Your task to perform on an android device: check google app version Image 0: 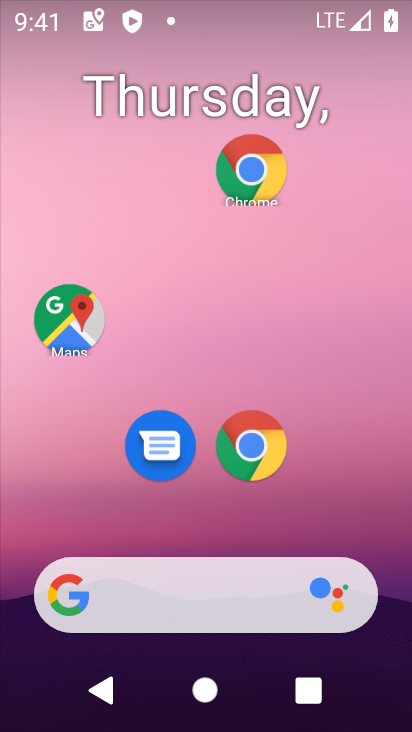
Step 0: drag from (211, 553) to (236, 50)
Your task to perform on an android device: check google app version Image 1: 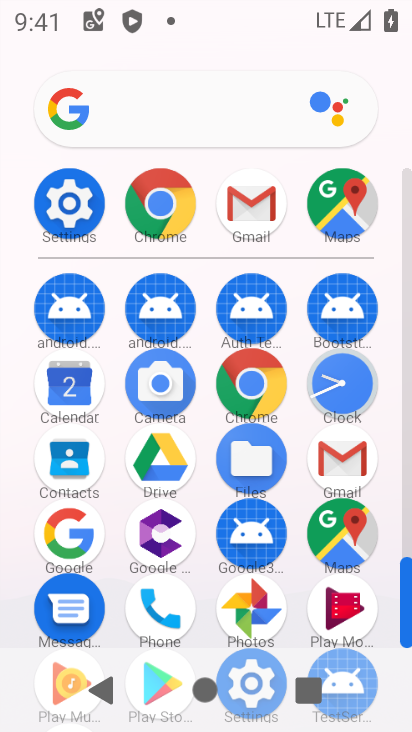
Step 1: click (76, 529)
Your task to perform on an android device: check google app version Image 2: 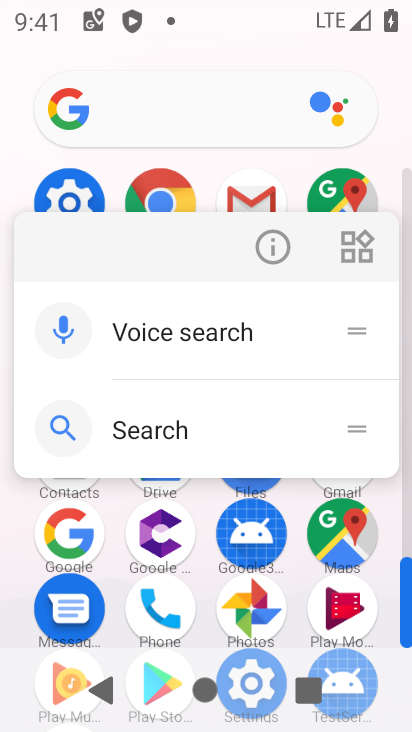
Step 2: click (268, 245)
Your task to perform on an android device: check google app version Image 3: 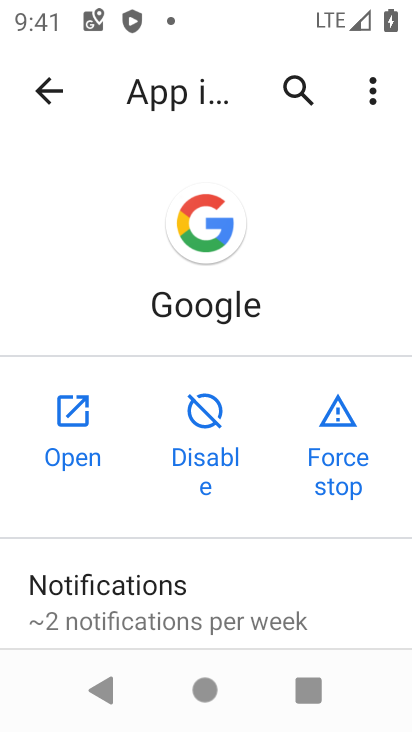
Step 3: drag from (268, 549) to (195, 3)
Your task to perform on an android device: check google app version Image 4: 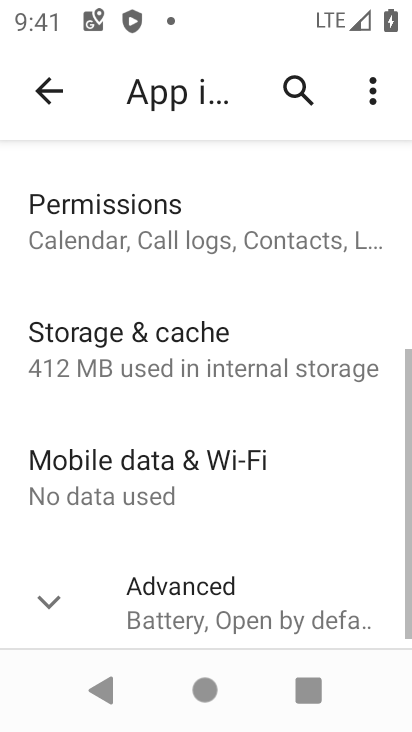
Step 4: click (176, 601)
Your task to perform on an android device: check google app version Image 5: 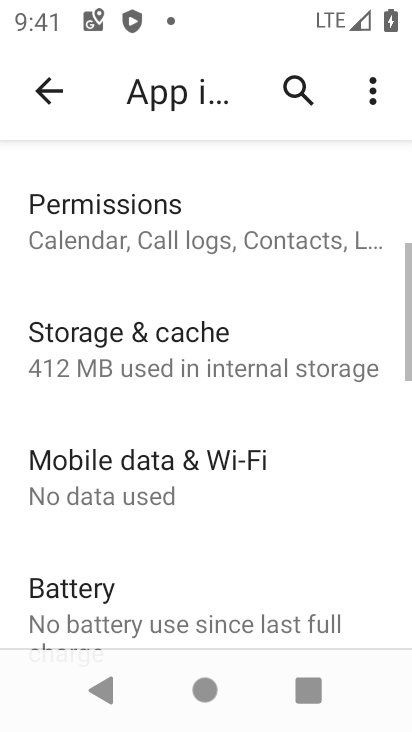
Step 5: task complete